Your task to perform on an android device: Open wifi settings Image 0: 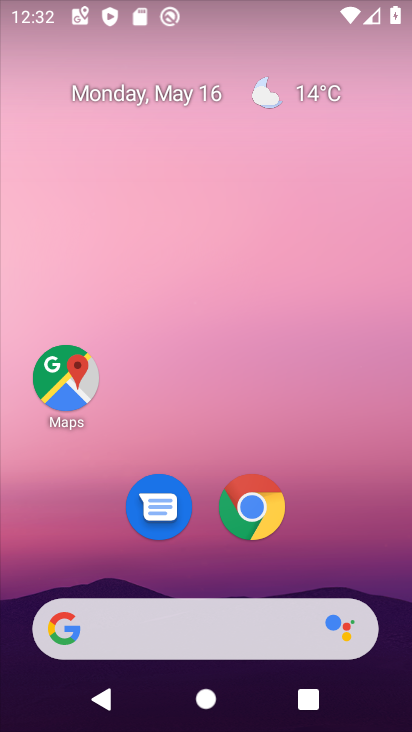
Step 0: drag from (345, 525) to (221, 9)
Your task to perform on an android device: Open wifi settings Image 1: 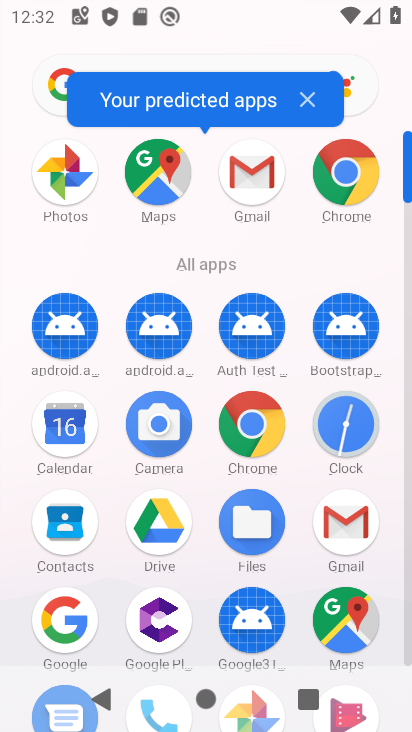
Step 1: drag from (203, 629) to (202, 242)
Your task to perform on an android device: Open wifi settings Image 2: 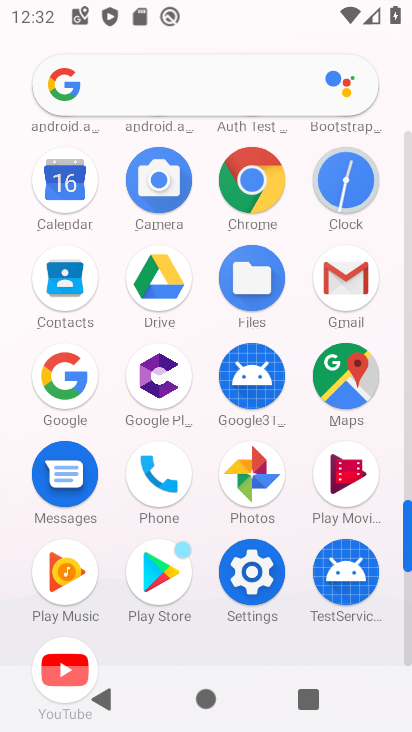
Step 2: click (243, 565)
Your task to perform on an android device: Open wifi settings Image 3: 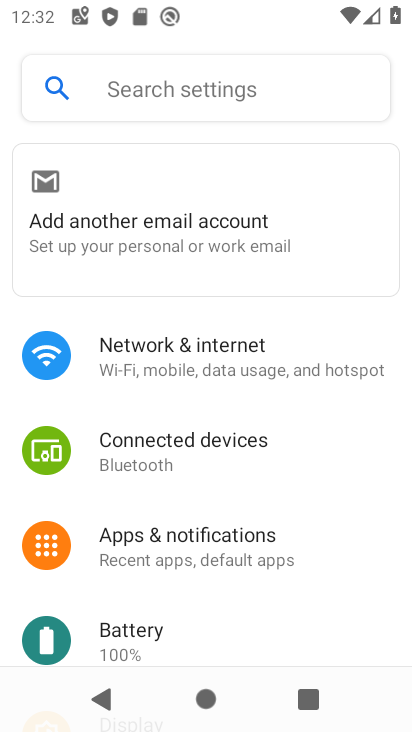
Step 3: click (217, 365)
Your task to perform on an android device: Open wifi settings Image 4: 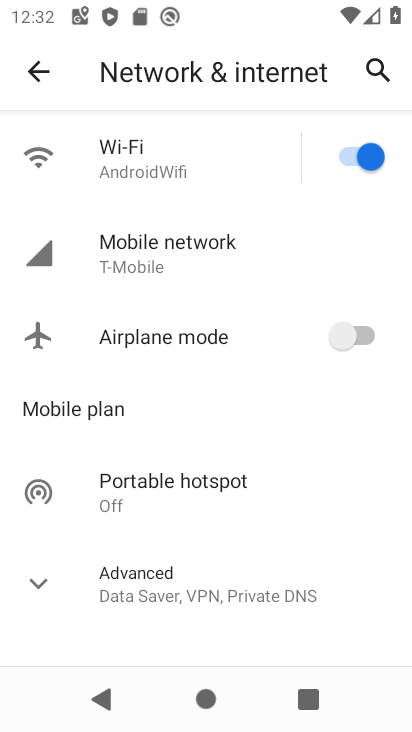
Step 4: click (167, 150)
Your task to perform on an android device: Open wifi settings Image 5: 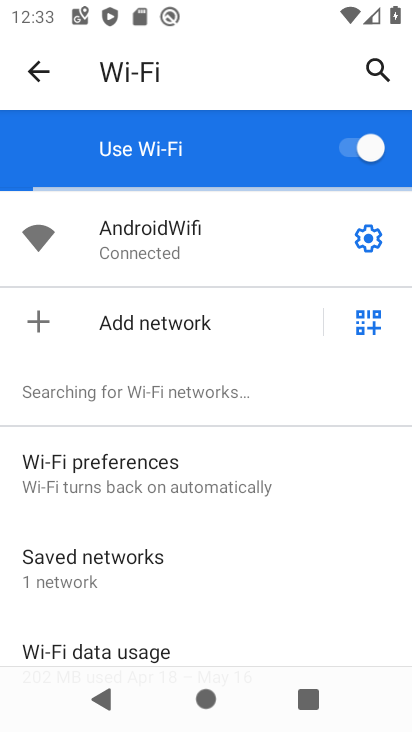
Step 5: task complete